Your task to perform on an android device: open chrome and create a bookmark for the current page Image 0: 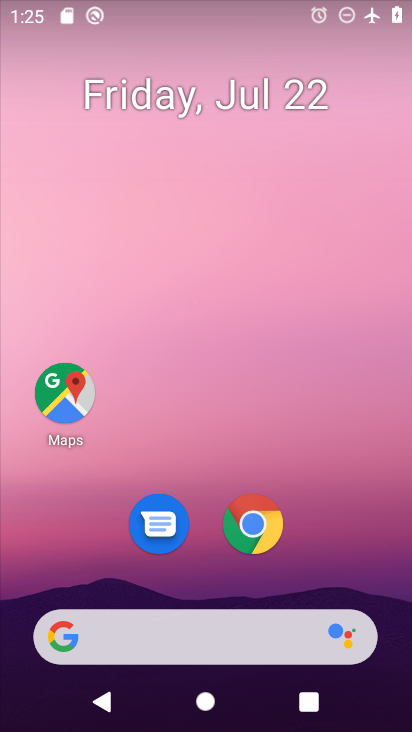
Step 0: click (260, 526)
Your task to perform on an android device: open chrome and create a bookmark for the current page Image 1: 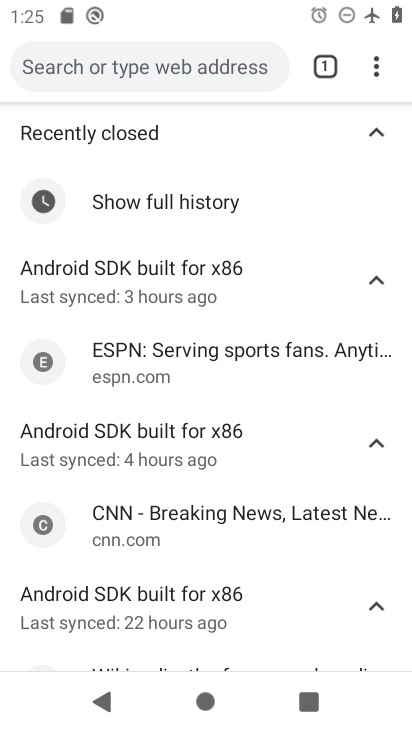
Step 1: click (376, 71)
Your task to perform on an android device: open chrome and create a bookmark for the current page Image 2: 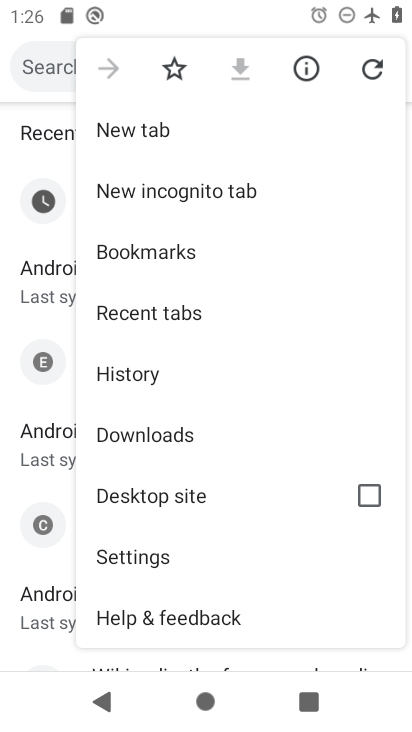
Step 2: click (177, 63)
Your task to perform on an android device: open chrome and create a bookmark for the current page Image 3: 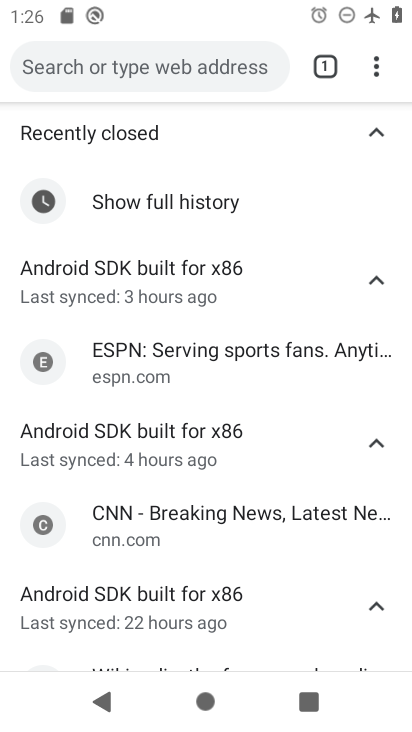
Step 3: click (381, 58)
Your task to perform on an android device: open chrome and create a bookmark for the current page Image 4: 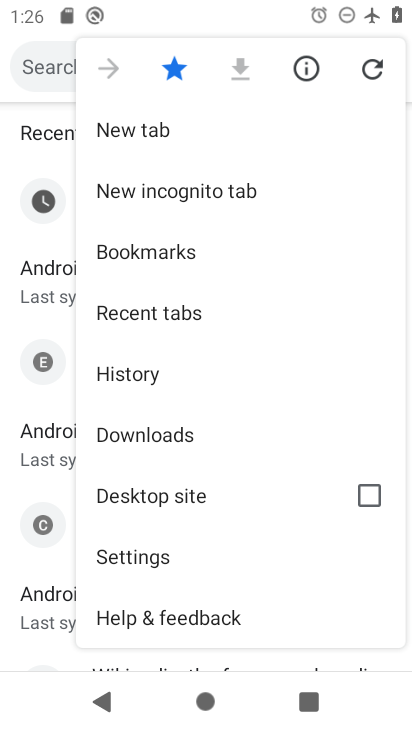
Step 4: click (44, 158)
Your task to perform on an android device: open chrome and create a bookmark for the current page Image 5: 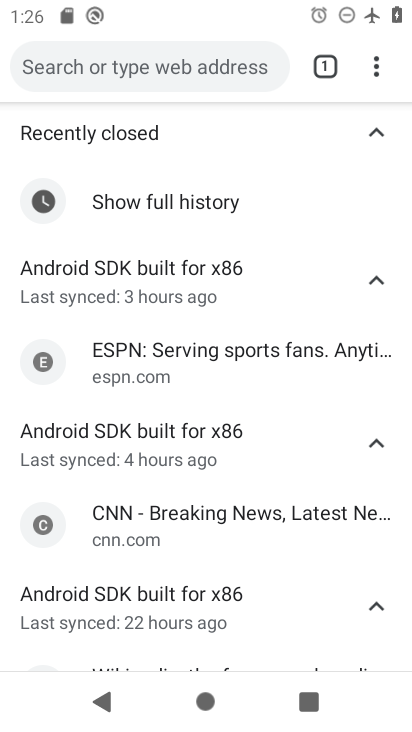
Step 5: task complete